Your task to perform on an android device: toggle notification dots Image 0: 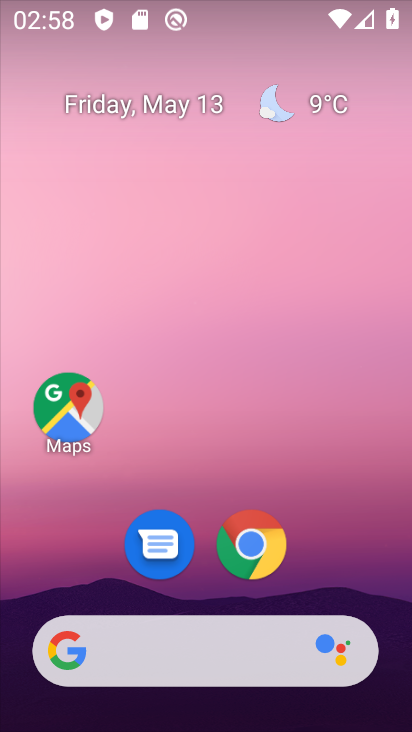
Step 0: drag from (335, 543) to (261, 0)
Your task to perform on an android device: toggle notification dots Image 1: 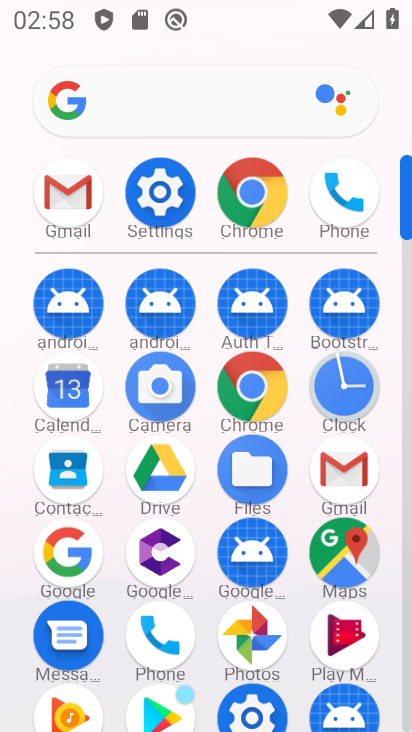
Step 1: click (156, 188)
Your task to perform on an android device: toggle notification dots Image 2: 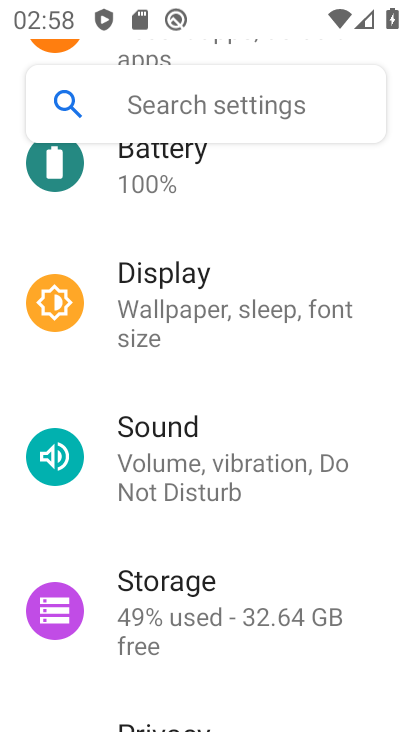
Step 2: drag from (292, 236) to (286, 589)
Your task to perform on an android device: toggle notification dots Image 3: 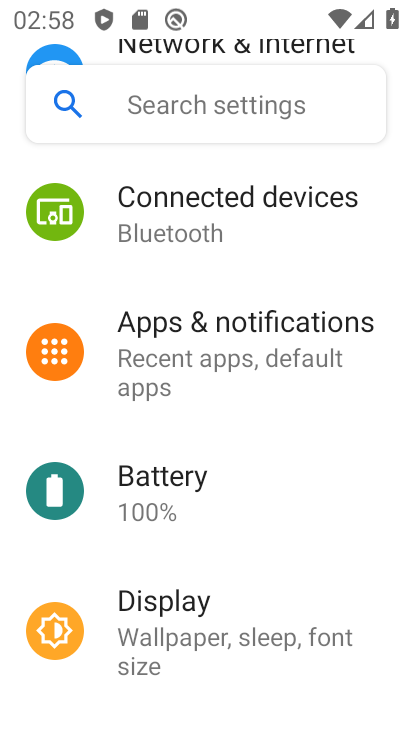
Step 3: click (255, 295)
Your task to perform on an android device: toggle notification dots Image 4: 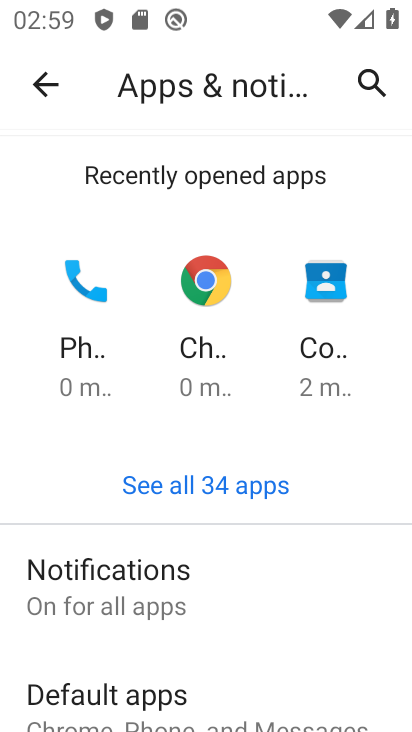
Step 4: drag from (334, 631) to (339, 238)
Your task to perform on an android device: toggle notification dots Image 5: 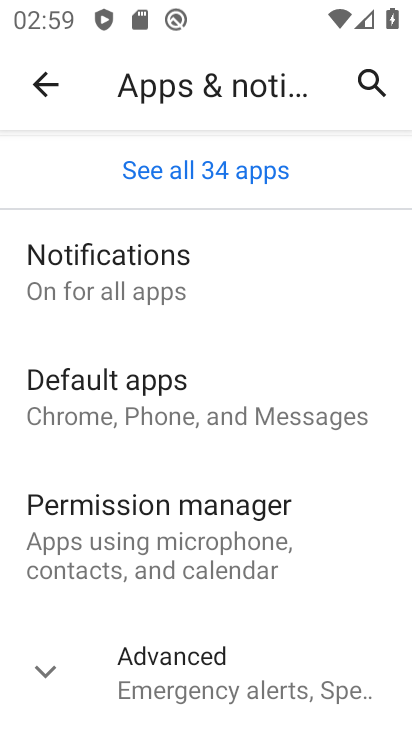
Step 5: click (110, 259)
Your task to perform on an android device: toggle notification dots Image 6: 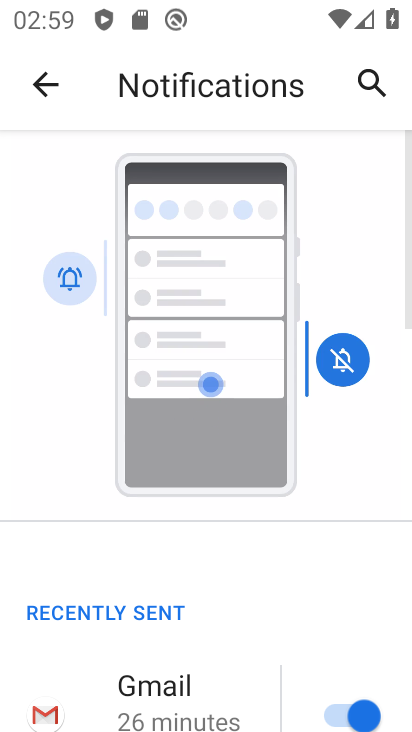
Step 6: drag from (246, 614) to (229, 113)
Your task to perform on an android device: toggle notification dots Image 7: 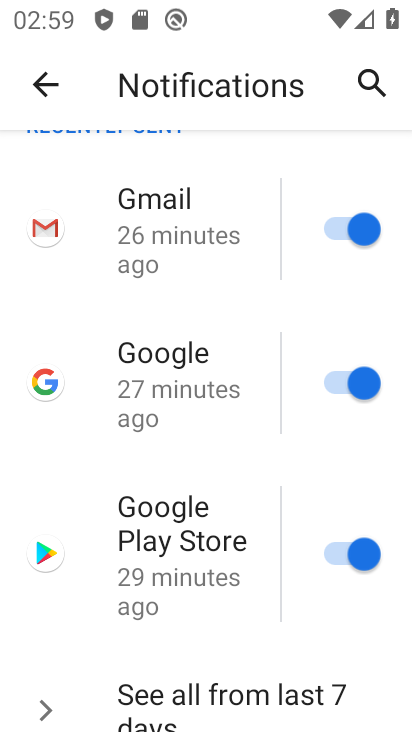
Step 7: drag from (149, 636) to (213, 172)
Your task to perform on an android device: toggle notification dots Image 8: 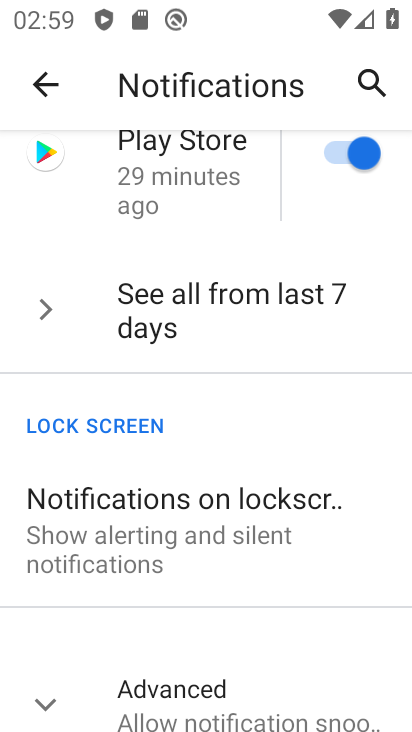
Step 8: drag from (218, 584) to (218, 177)
Your task to perform on an android device: toggle notification dots Image 9: 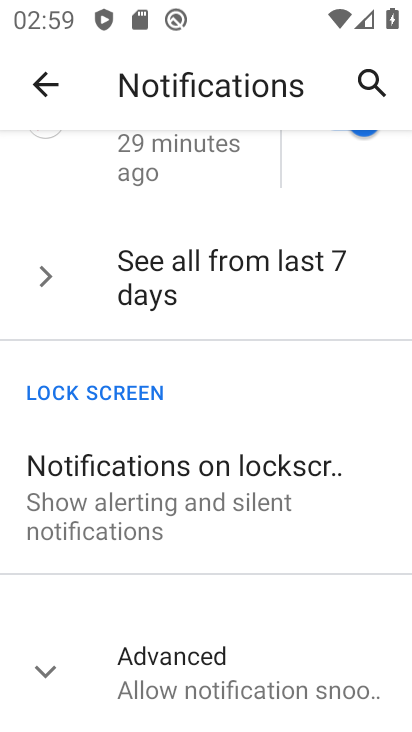
Step 9: click (66, 679)
Your task to perform on an android device: toggle notification dots Image 10: 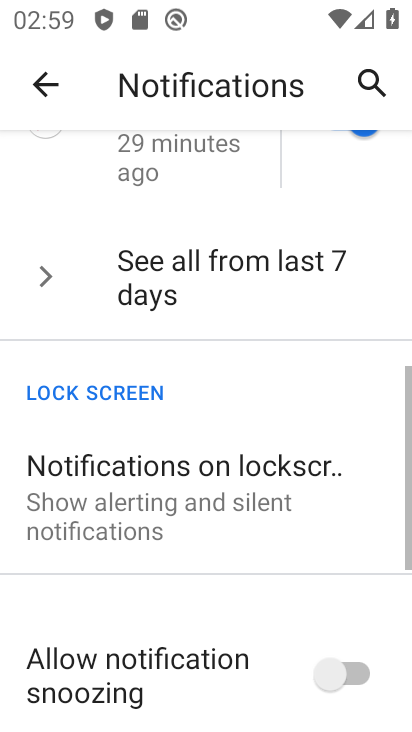
Step 10: drag from (213, 582) to (196, 109)
Your task to perform on an android device: toggle notification dots Image 11: 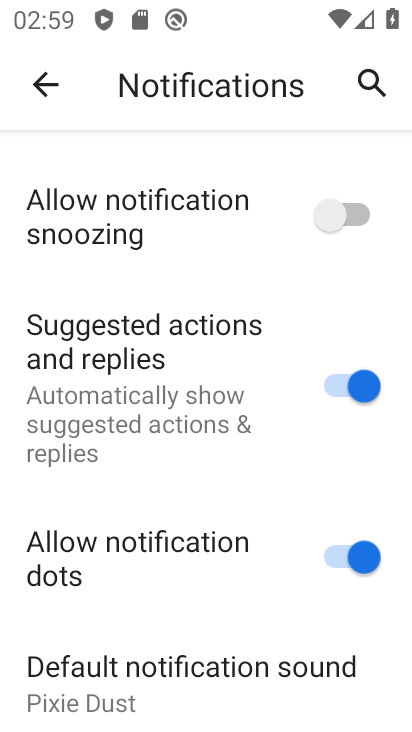
Step 11: click (346, 563)
Your task to perform on an android device: toggle notification dots Image 12: 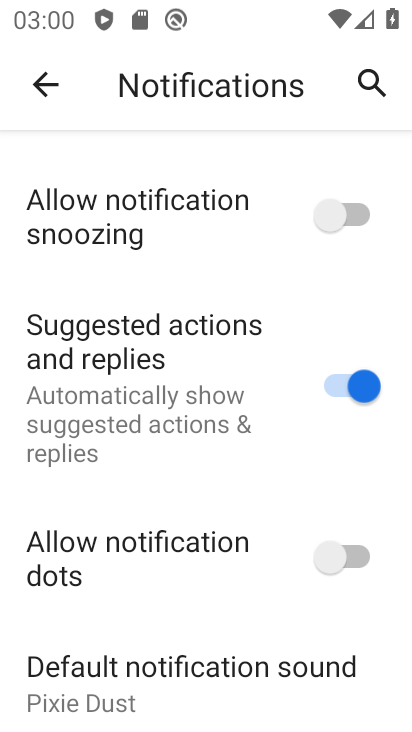
Step 12: task complete